Your task to perform on an android device: Open the calendar and show me this week's events? Image 0: 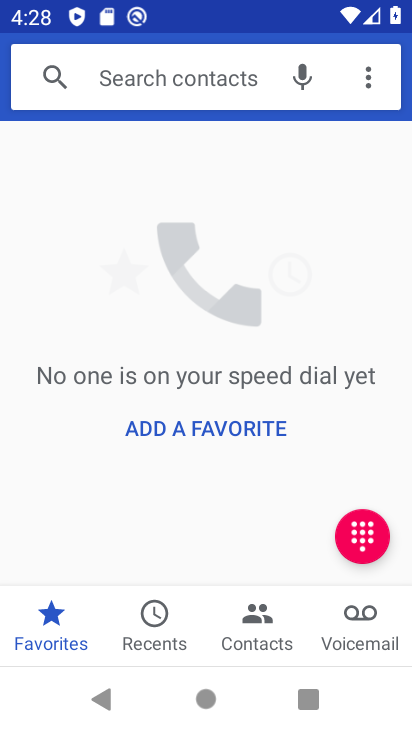
Step 0: press back button
Your task to perform on an android device: Open the calendar and show me this week's events? Image 1: 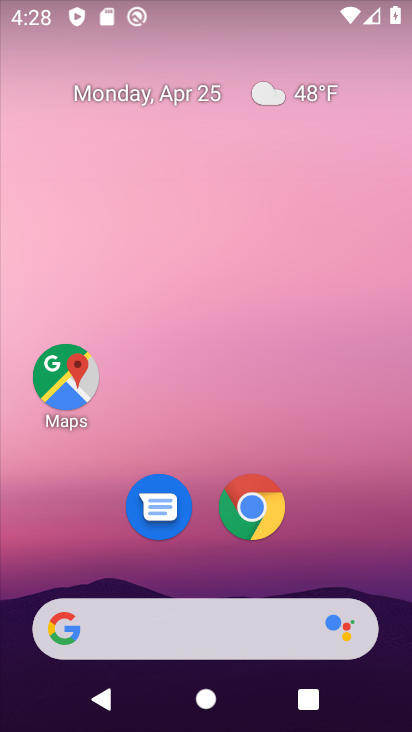
Step 1: drag from (184, 592) to (313, 4)
Your task to perform on an android device: Open the calendar and show me this week's events? Image 2: 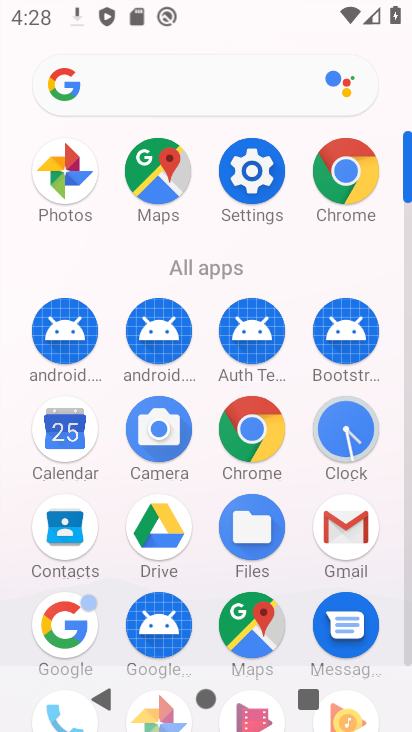
Step 2: click (62, 443)
Your task to perform on an android device: Open the calendar and show me this week's events? Image 3: 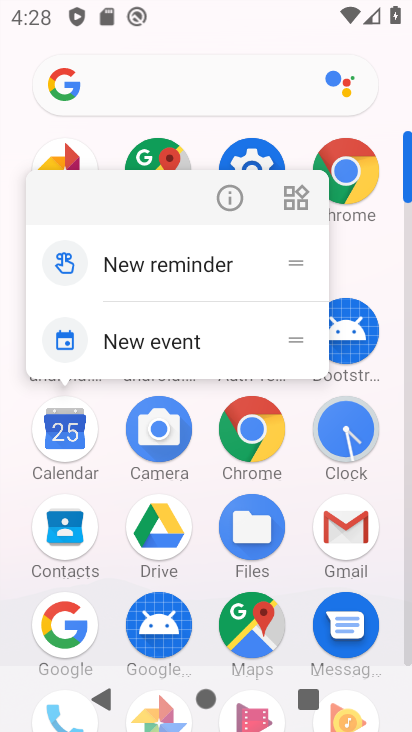
Step 3: click (62, 432)
Your task to perform on an android device: Open the calendar and show me this week's events? Image 4: 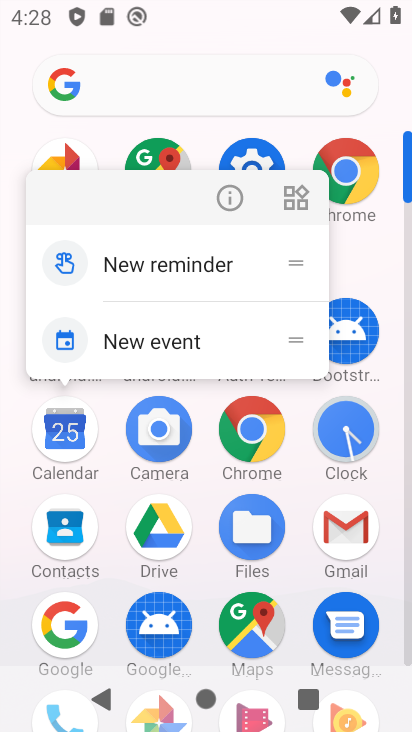
Step 4: click (63, 431)
Your task to perform on an android device: Open the calendar and show me this week's events? Image 5: 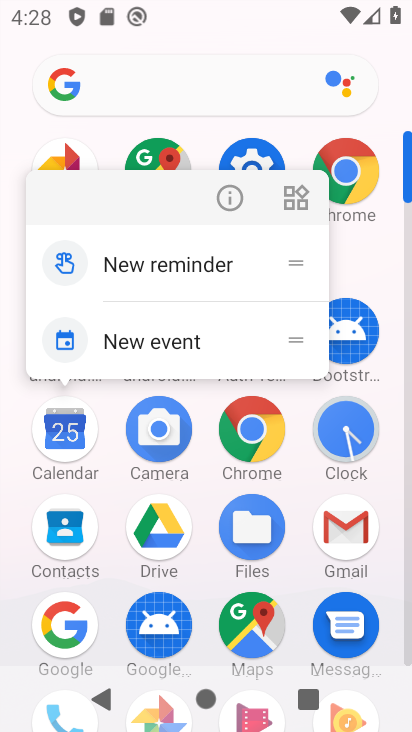
Step 5: click (63, 431)
Your task to perform on an android device: Open the calendar and show me this week's events? Image 6: 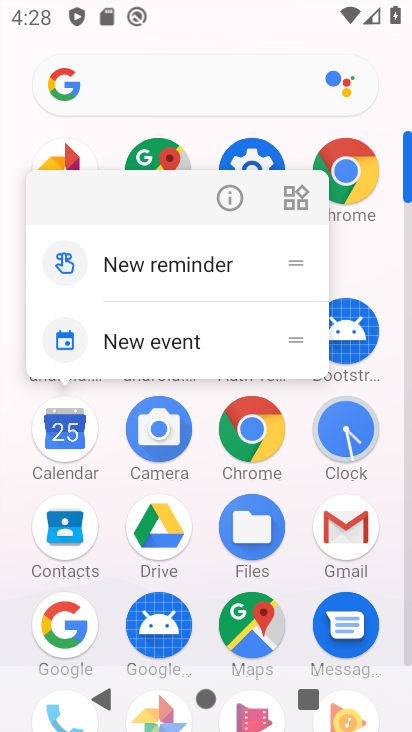
Step 6: click (64, 431)
Your task to perform on an android device: Open the calendar and show me this week's events? Image 7: 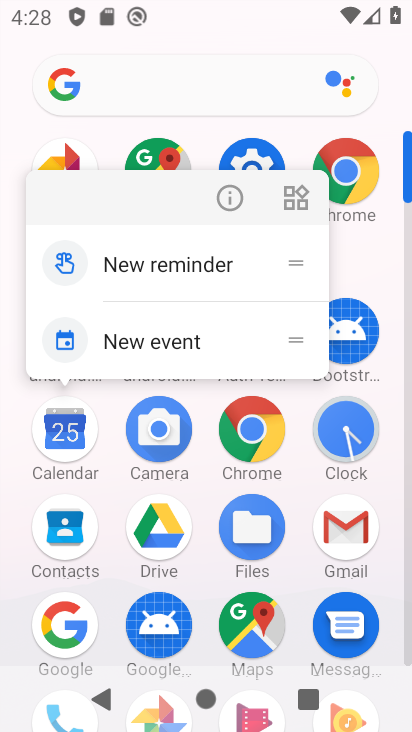
Step 7: click (75, 449)
Your task to perform on an android device: Open the calendar and show me this week's events? Image 8: 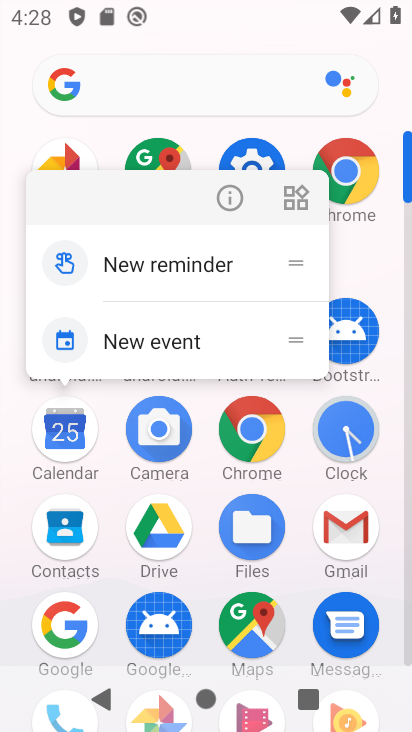
Step 8: click (92, 430)
Your task to perform on an android device: Open the calendar and show me this week's events? Image 9: 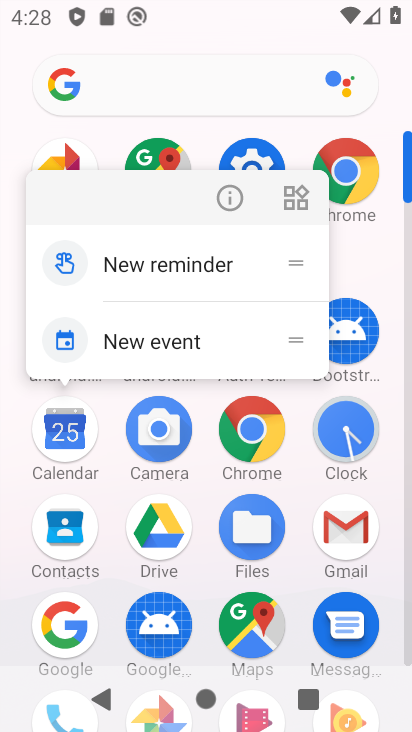
Step 9: click (64, 427)
Your task to perform on an android device: Open the calendar and show me this week's events? Image 10: 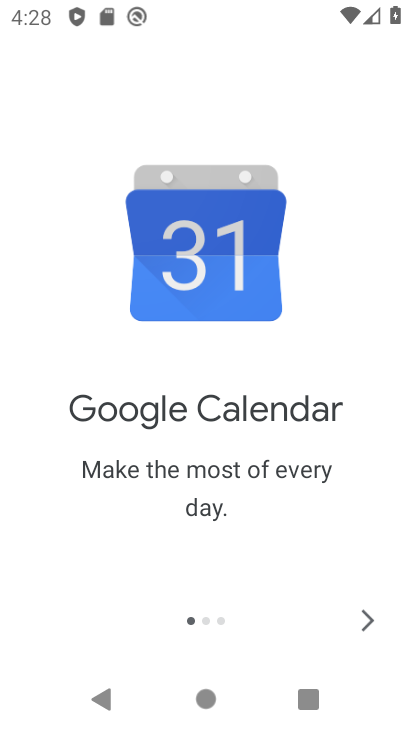
Step 10: click (64, 427)
Your task to perform on an android device: Open the calendar and show me this week's events? Image 11: 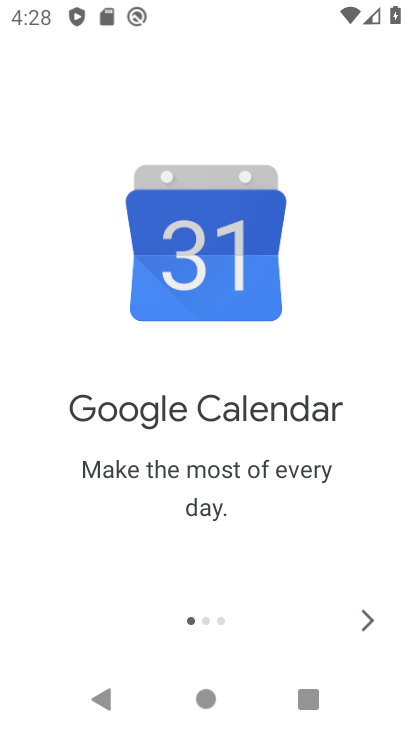
Step 11: click (356, 617)
Your task to perform on an android device: Open the calendar and show me this week's events? Image 12: 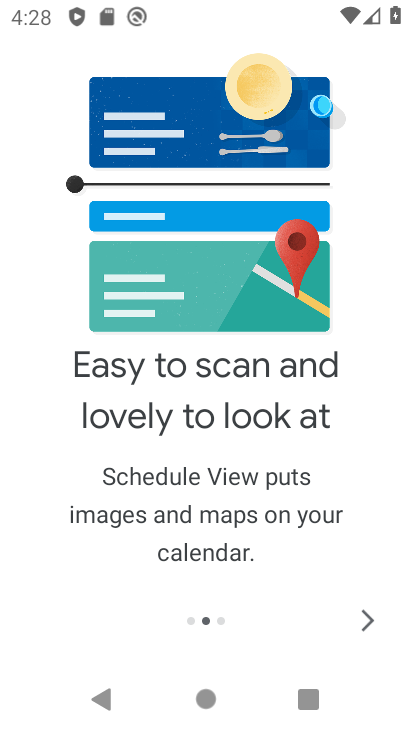
Step 12: click (357, 617)
Your task to perform on an android device: Open the calendar and show me this week's events? Image 13: 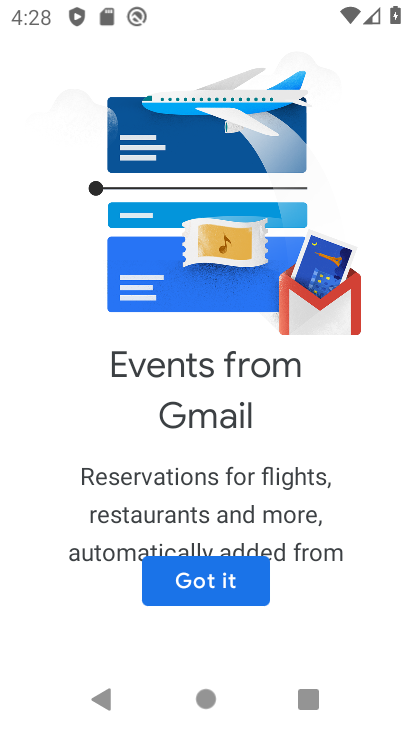
Step 13: click (250, 577)
Your task to perform on an android device: Open the calendar and show me this week's events? Image 14: 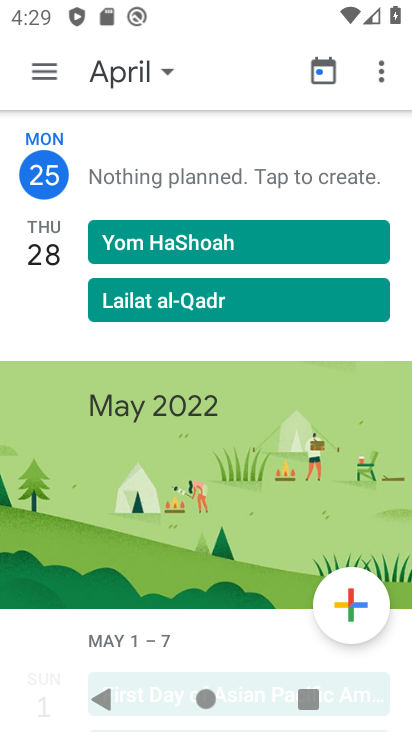
Step 14: click (56, 70)
Your task to perform on an android device: Open the calendar and show me this week's events? Image 15: 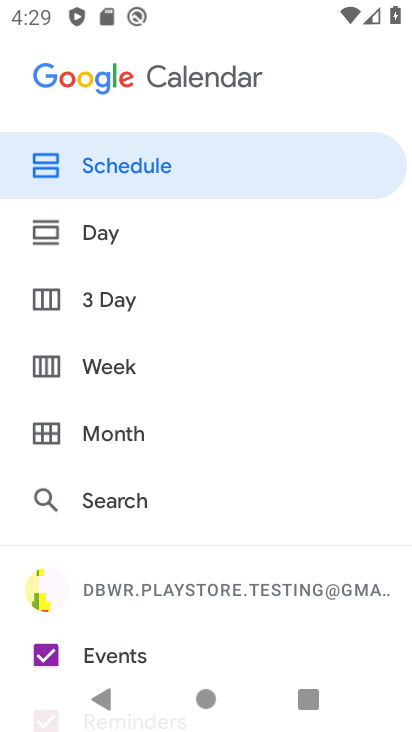
Step 15: click (143, 361)
Your task to perform on an android device: Open the calendar and show me this week's events? Image 16: 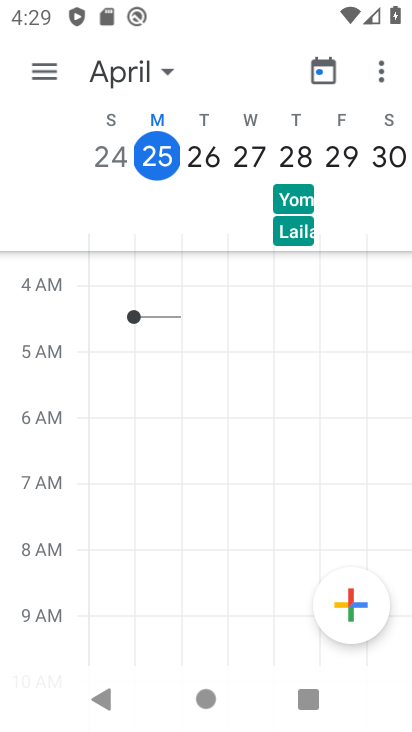
Step 16: click (48, 85)
Your task to perform on an android device: Open the calendar and show me this week's events? Image 17: 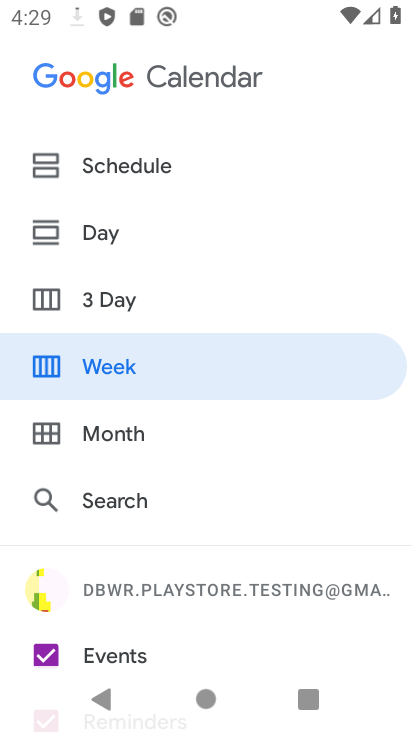
Step 17: drag from (154, 504) to (229, 236)
Your task to perform on an android device: Open the calendar and show me this week's events? Image 18: 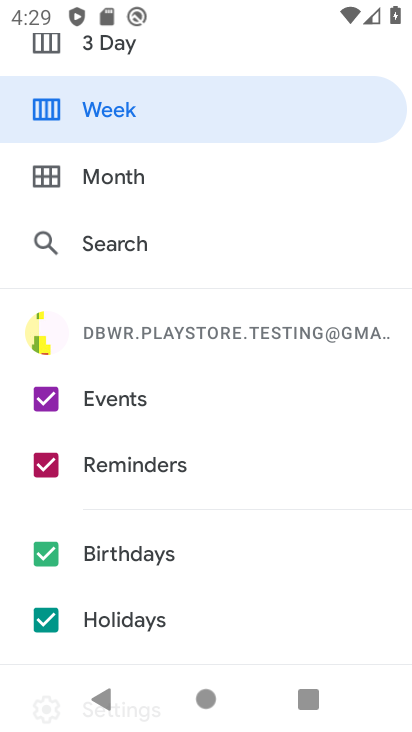
Step 18: click (61, 457)
Your task to perform on an android device: Open the calendar and show me this week's events? Image 19: 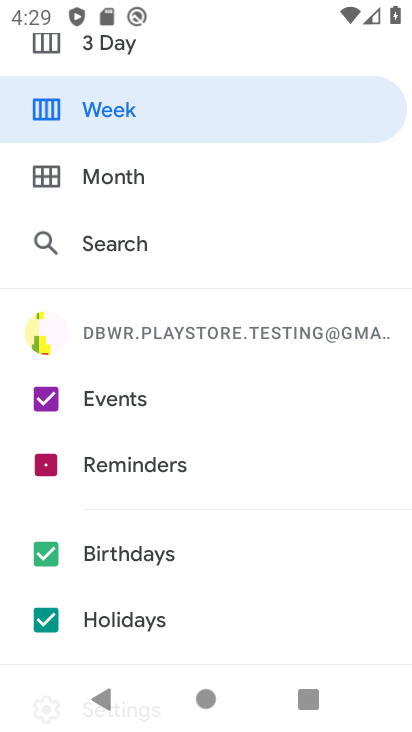
Step 19: click (48, 555)
Your task to perform on an android device: Open the calendar and show me this week's events? Image 20: 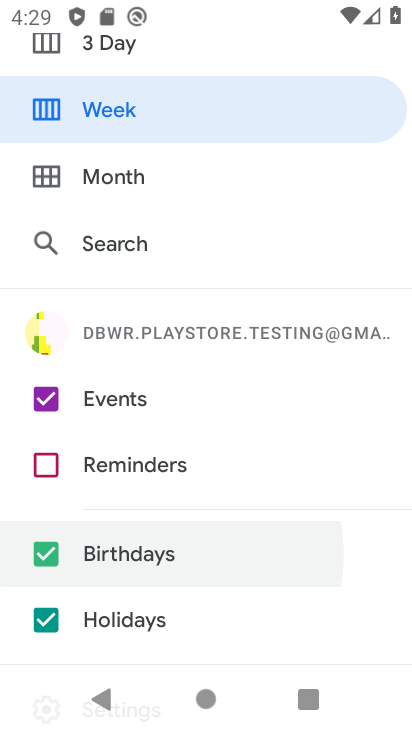
Step 20: click (41, 621)
Your task to perform on an android device: Open the calendar and show me this week's events? Image 21: 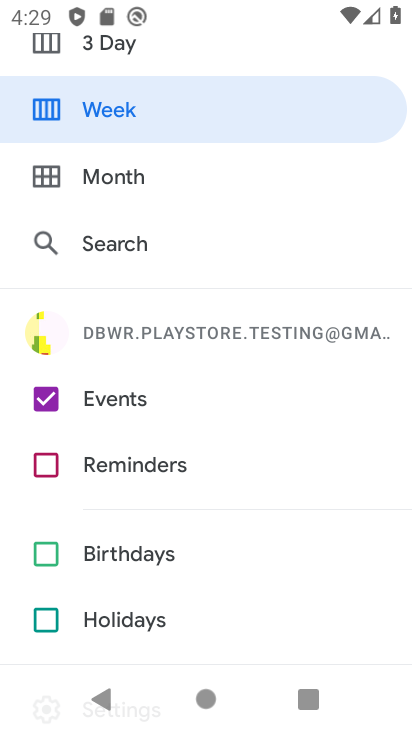
Step 21: task complete